Your task to perform on an android device: turn off javascript in the chrome app Image 0: 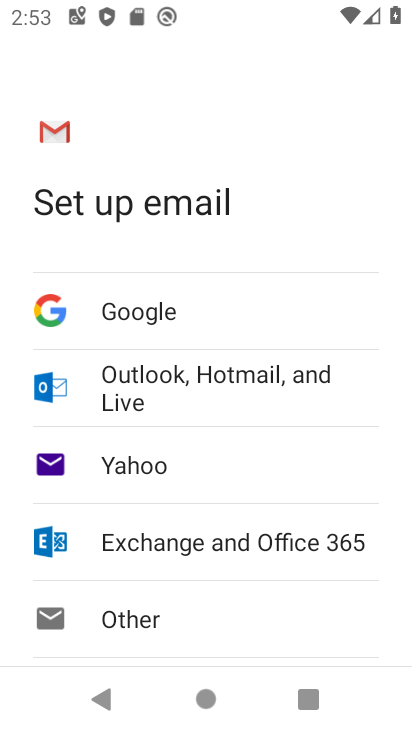
Step 0: click (198, 700)
Your task to perform on an android device: turn off javascript in the chrome app Image 1: 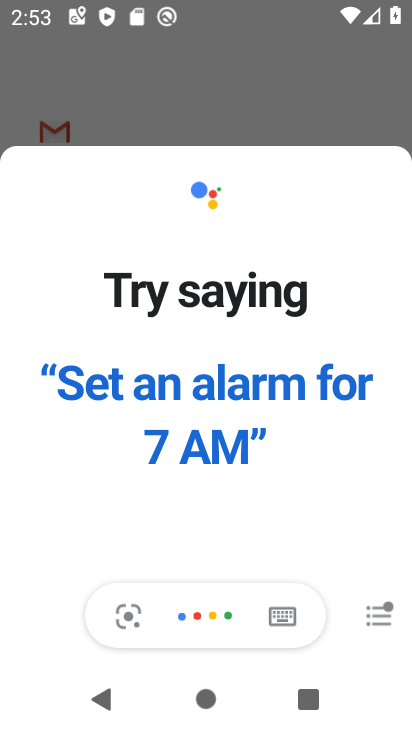
Step 1: press home button
Your task to perform on an android device: turn off javascript in the chrome app Image 2: 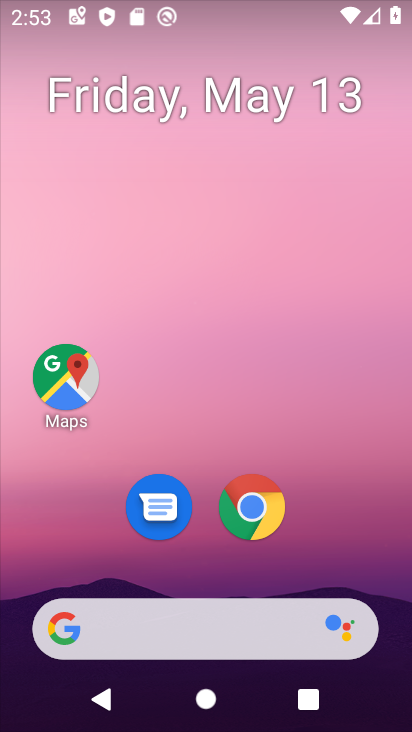
Step 2: drag from (328, 542) to (408, 8)
Your task to perform on an android device: turn off javascript in the chrome app Image 3: 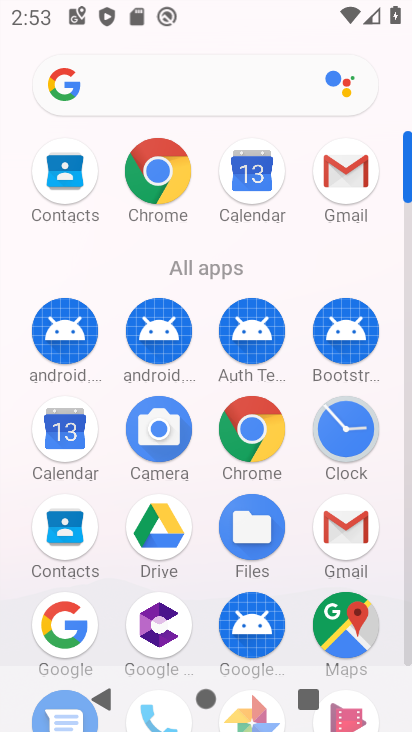
Step 3: drag from (302, 467) to (294, 154)
Your task to perform on an android device: turn off javascript in the chrome app Image 4: 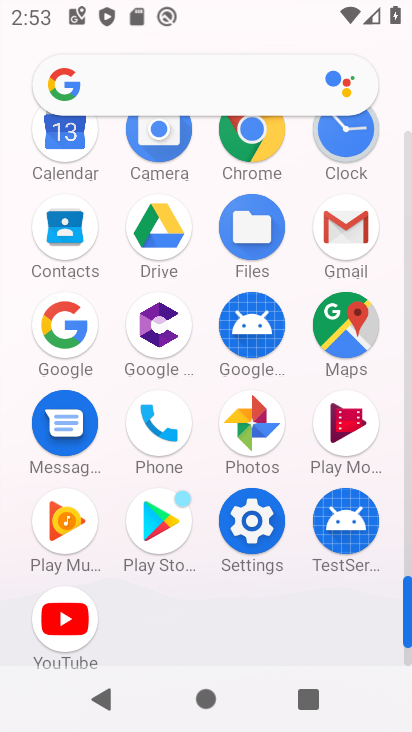
Step 4: click (268, 521)
Your task to perform on an android device: turn off javascript in the chrome app Image 5: 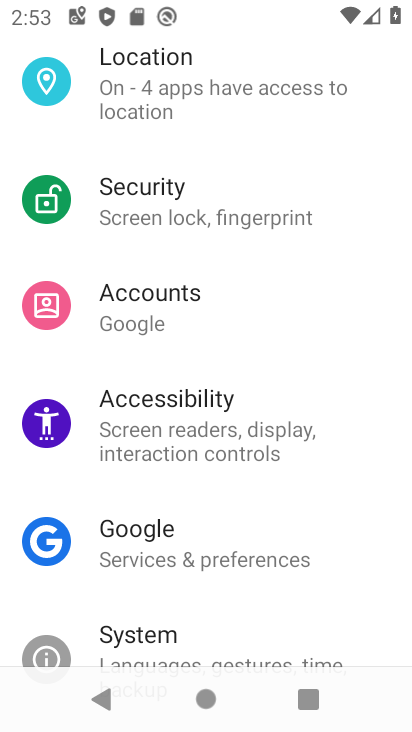
Step 5: press home button
Your task to perform on an android device: turn off javascript in the chrome app Image 6: 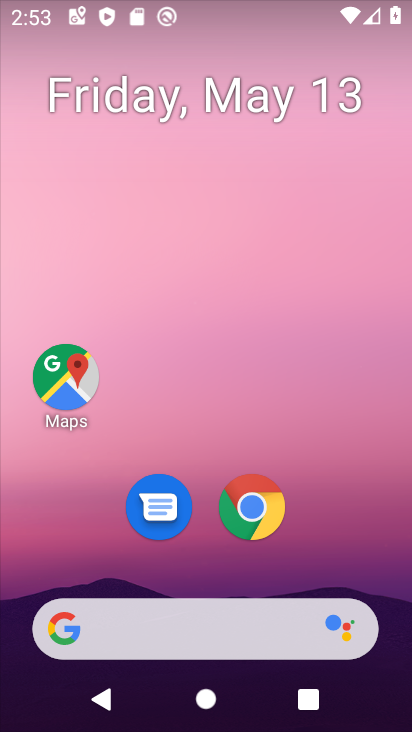
Step 6: click (247, 485)
Your task to perform on an android device: turn off javascript in the chrome app Image 7: 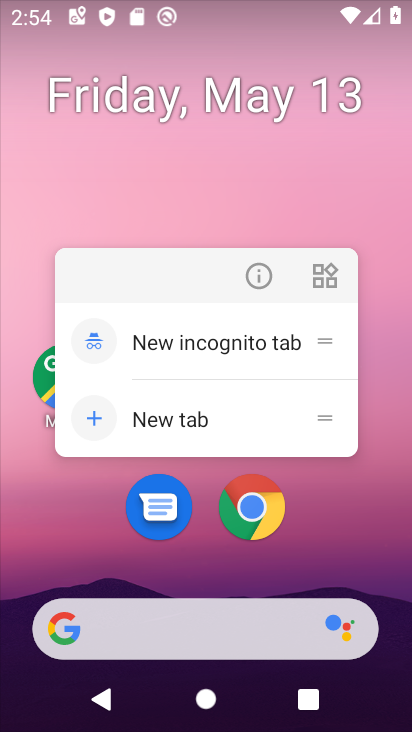
Step 7: click (235, 500)
Your task to perform on an android device: turn off javascript in the chrome app Image 8: 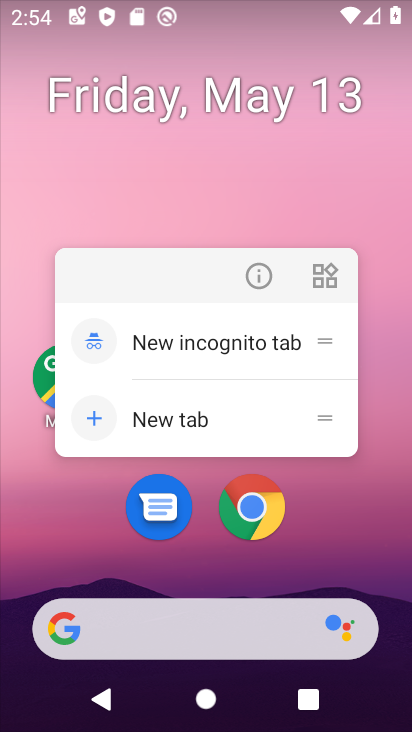
Step 8: click (235, 500)
Your task to perform on an android device: turn off javascript in the chrome app Image 9: 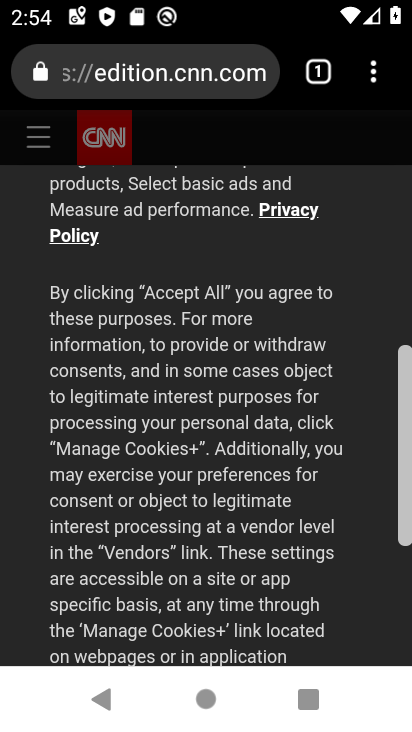
Step 9: click (375, 77)
Your task to perform on an android device: turn off javascript in the chrome app Image 10: 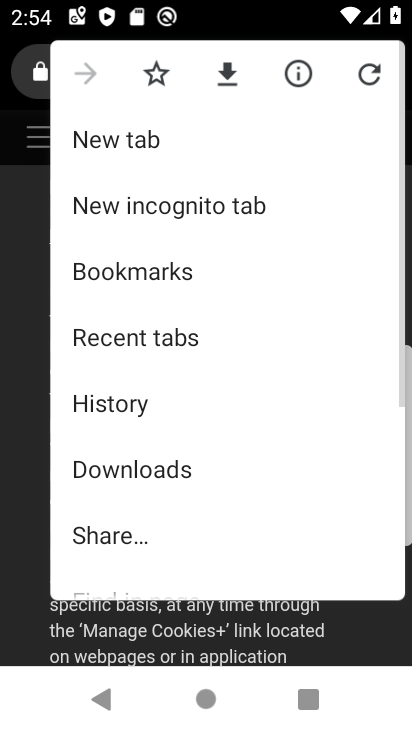
Step 10: drag from (127, 470) to (147, 130)
Your task to perform on an android device: turn off javascript in the chrome app Image 11: 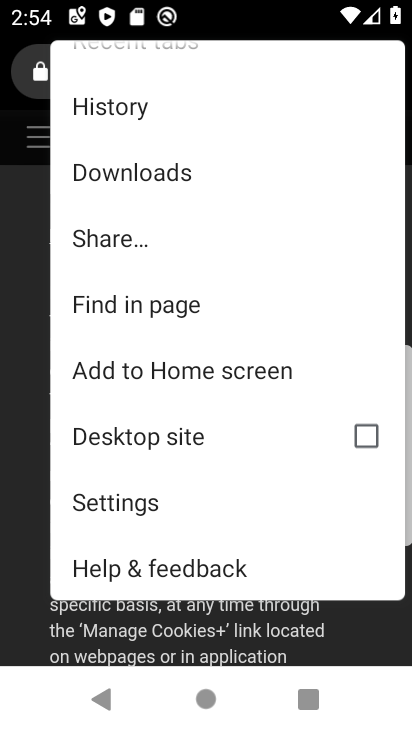
Step 11: click (122, 501)
Your task to perform on an android device: turn off javascript in the chrome app Image 12: 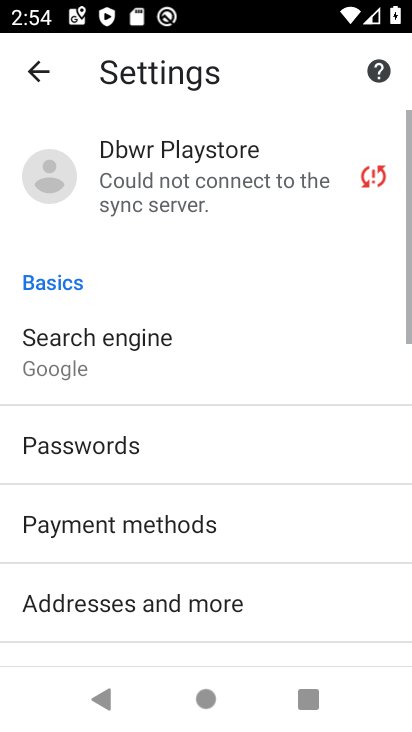
Step 12: drag from (148, 526) to (153, 153)
Your task to perform on an android device: turn off javascript in the chrome app Image 13: 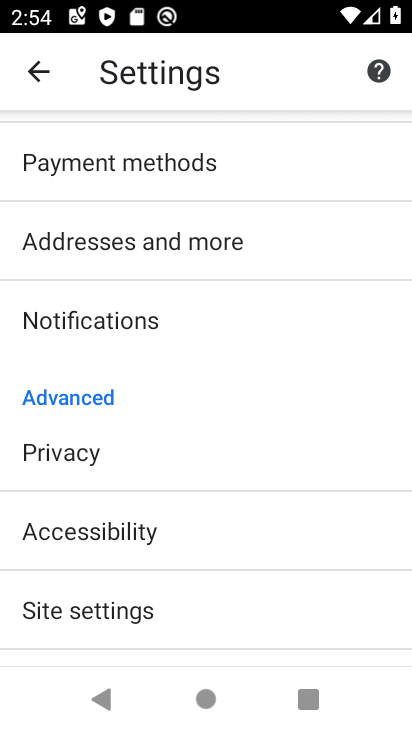
Step 13: drag from (122, 577) to (161, 312)
Your task to perform on an android device: turn off javascript in the chrome app Image 14: 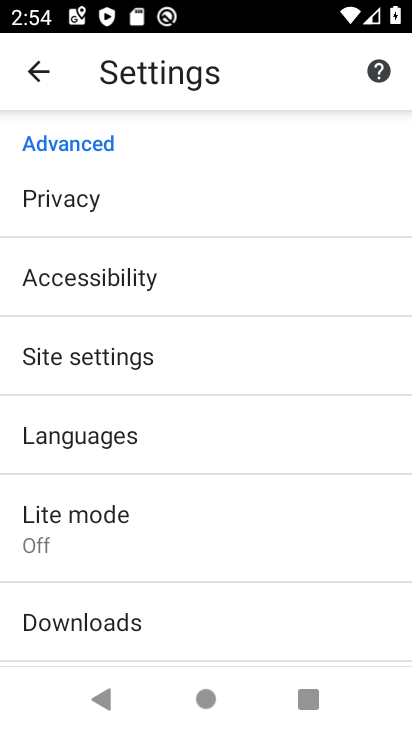
Step 14: click (127, 360)
Your task to perform on an android device: turn off javascript in the chrome app Image 15: 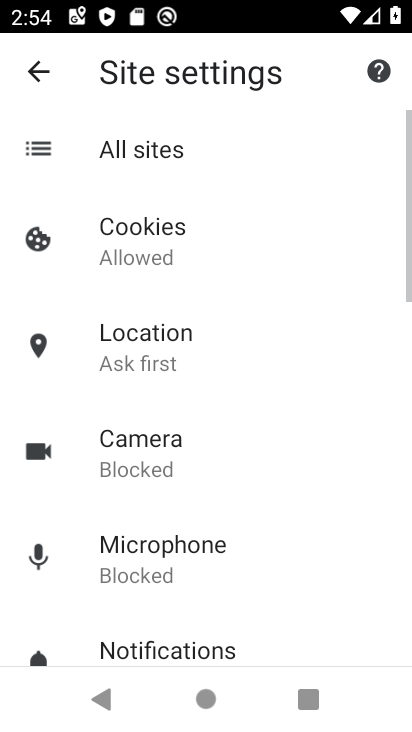
Step 15: drag from (146, 639) to (206, 104)
Your task to perform on an android device: turn off javascript in the chrome app Image 16: 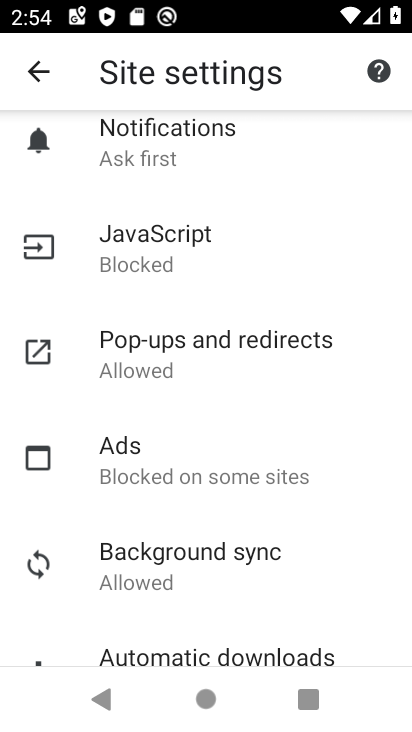
Step 16: click (167, 253)
Your task to perform on an android device: turn off javascript in the chrome app Image 17: 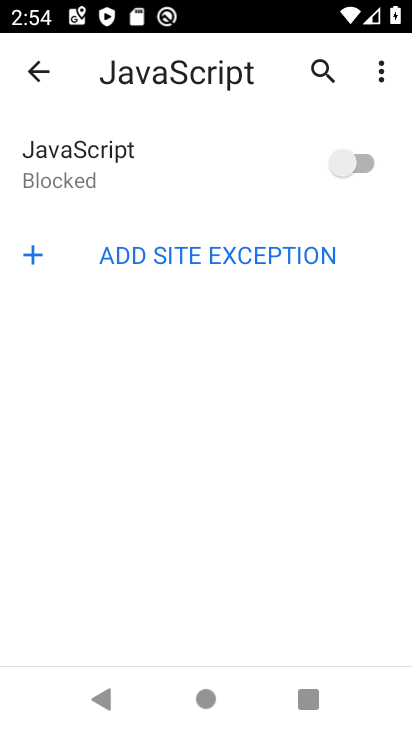
Step 17: task complete